Your task to perform on an android device: search for starred emails in the gmail app Image 0: 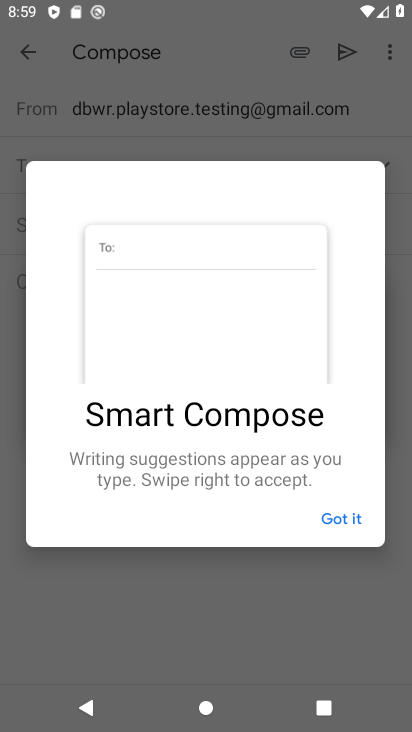
Step 0: press home button
Your task to perform on an android device: search for starred emails in the gmail app Image 1: 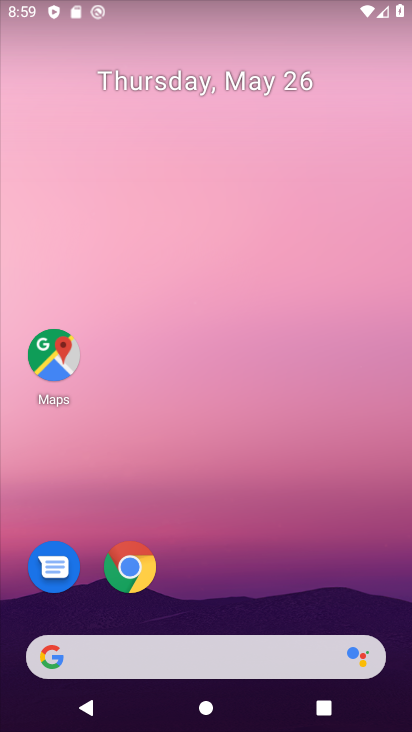
Step 1: drag from (175, 552) to (279, 201)
Your task to perform on an android device: search for starred emails in the gmail app Image 2: 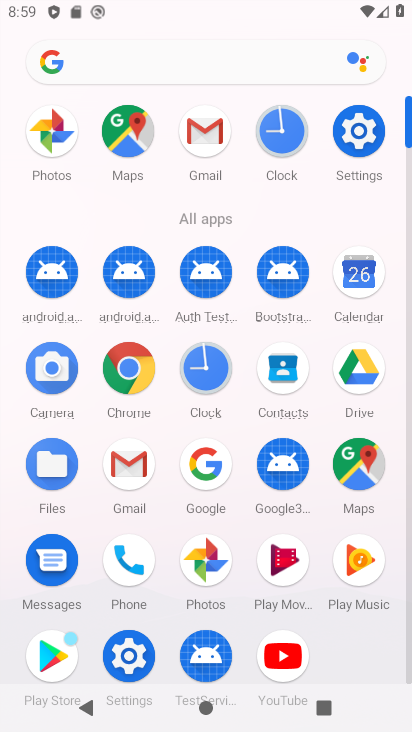
Step 2: click (204, 136)
Your task to perform on an android device: search for starred emails in the gmail app Image 3: 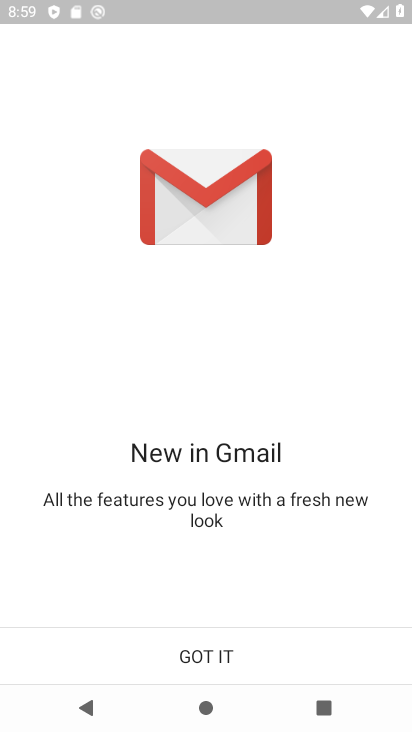
Step 3: click (217, 655)
Your task to perform on an android device: search for starred emails in the gmail app Image 4: 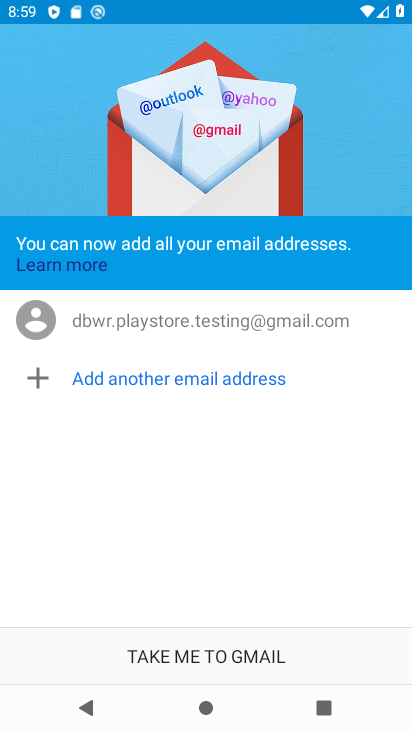
Step 4: click (214, 656)
Your task to perform on an android device: search for starred emails in the gmail app Image 5: 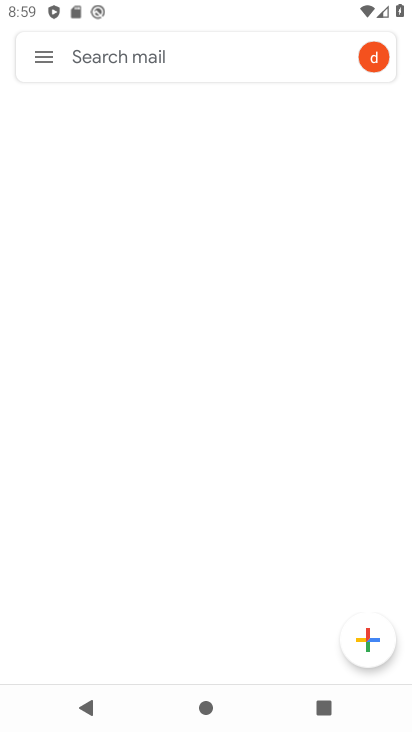
Step 5: click (47, 57)
Your task to perform on an android device: search for starred emails in the gmail app Image 6: 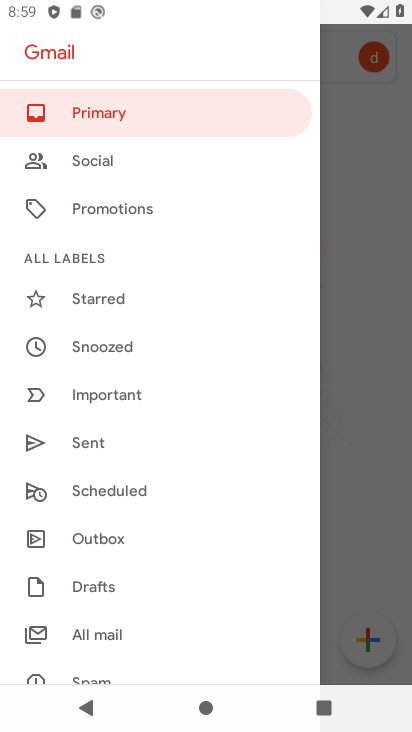
Step 6: click (114, 299)
Your task to perform on an android device: search for starred emails in the gmail app Image 7: 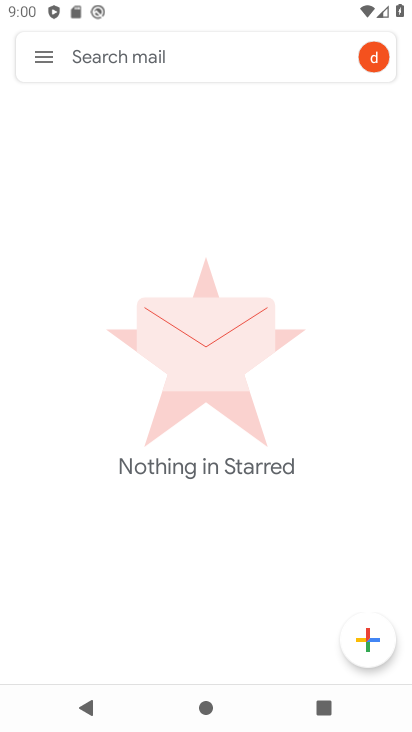
Step 7: task complete